Your task to perform on an android device: Check the weather Image 0: 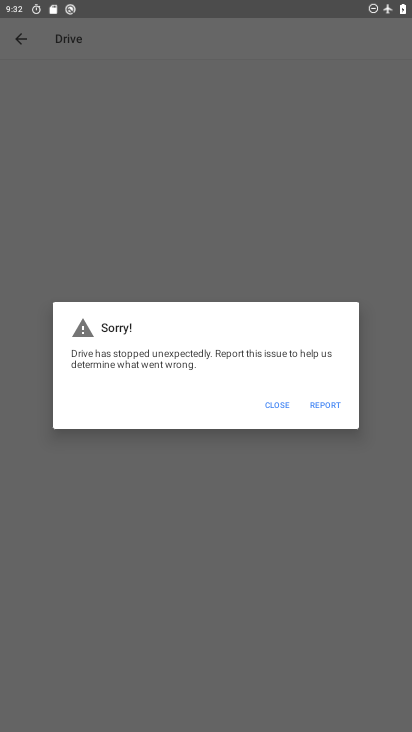
Step 0: press home button
Your task to perform on an android device: Check the weather Image 1: 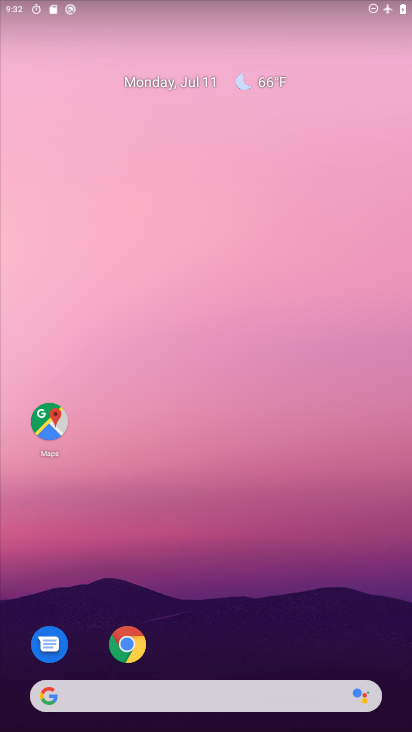
Step 1: click (268, 79)
Your task to perform on an android device: Check the weather Image 2: 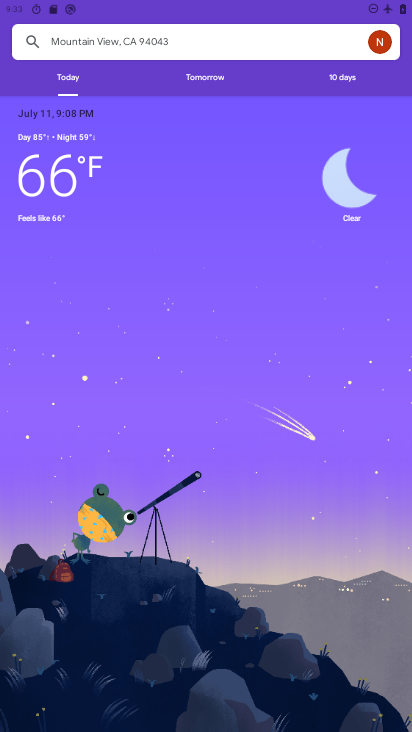
Step 2: task complete